Your task to perform on an android device: View the shopping cart on amazon.com. Search for logitech g933 on amazon.com, select the first entry, and add it to the cart. Image 0: 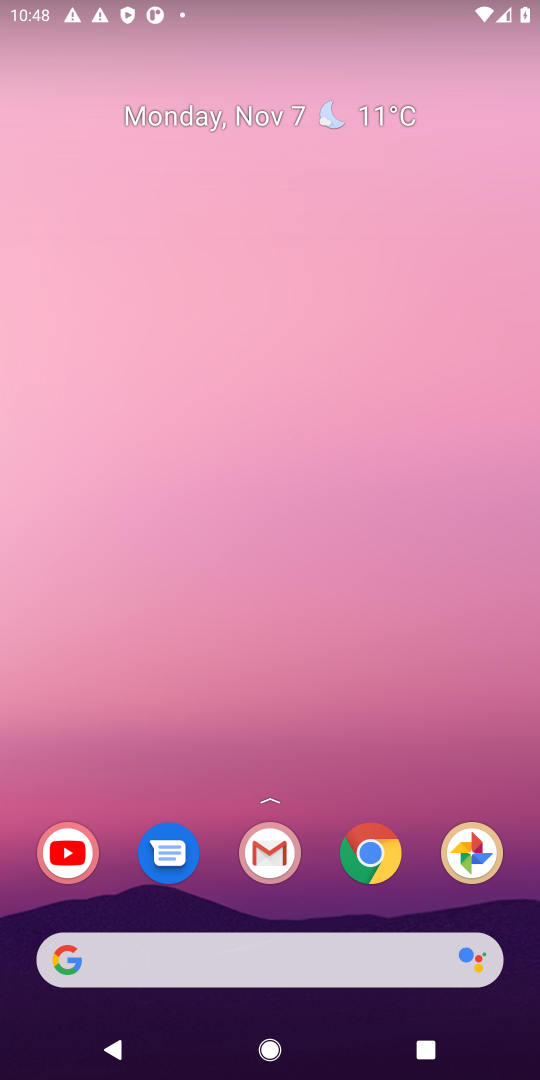
Step 0: click (286, 956)
Your task to perform on an android device: View the shopping cart on amazon.com. Search for logitech g933 on amazon.com, select the first entry, and add it to the cart. Image 1: 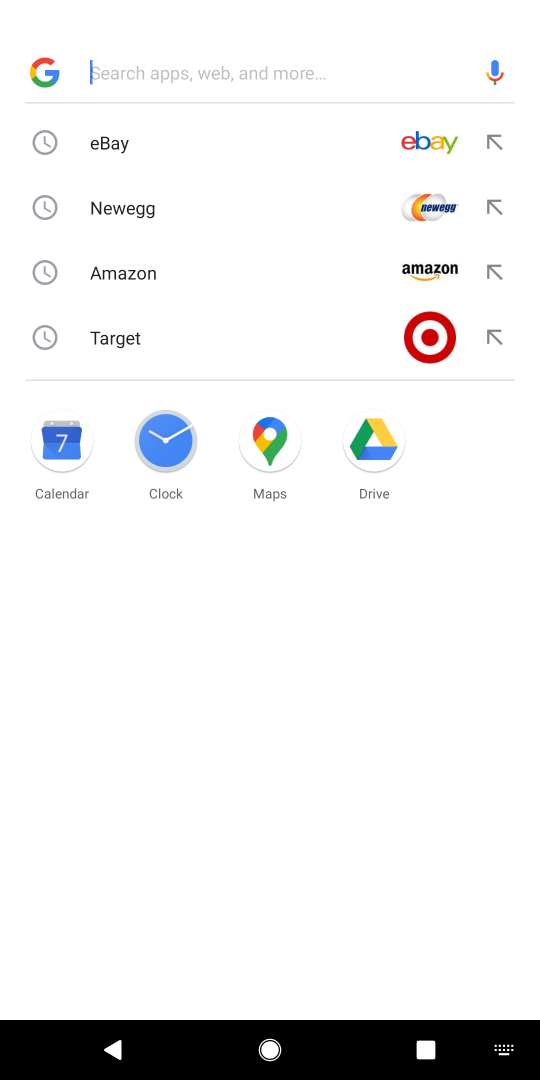
Step 1: click (114, 269)
Your task to perform on an android device: View the shopping cart on amazon.com. Search for logitech g933 on amazon.com, select the first entry, and add it to the cart. Image 2: 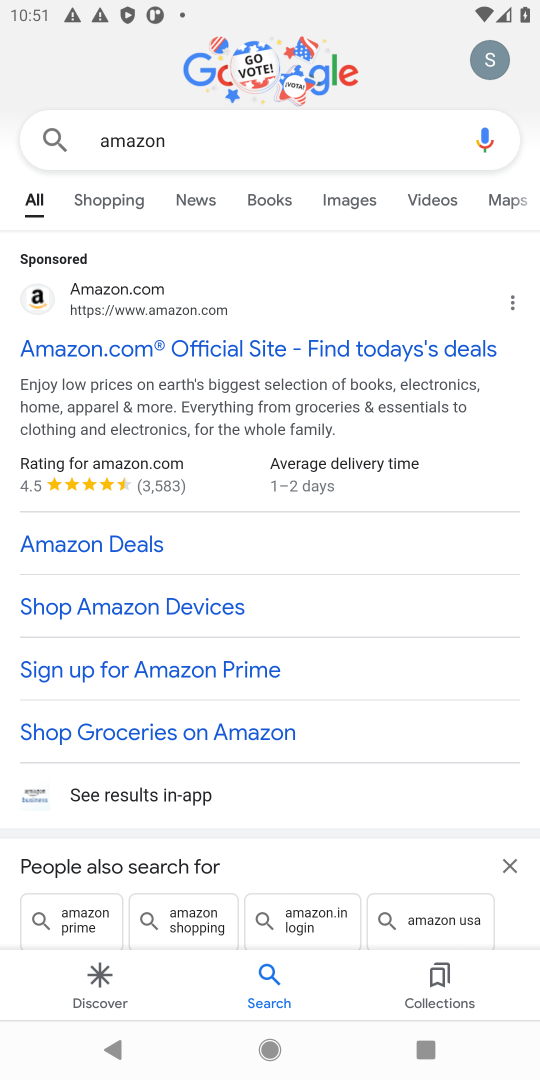
Step 2: click (262, 375)
Your task to perform on an android device: View the shopping cart on amazon.com. Search for logitech g933 on amazon.com, select the first entry, and add it to the cart. Image 3: 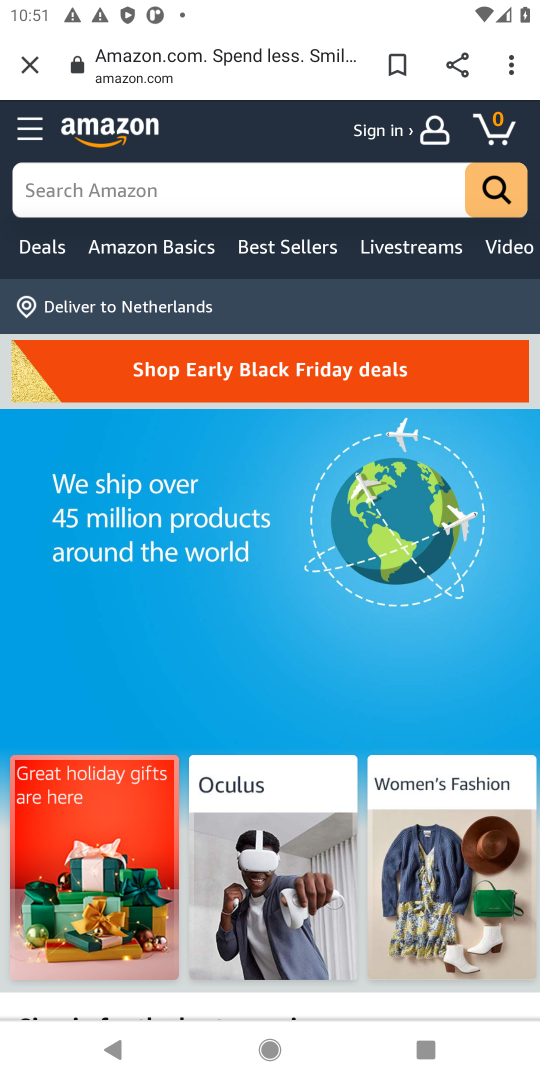
Step 3: task complete